Your task to perform on an android device: Open maps Image 0: 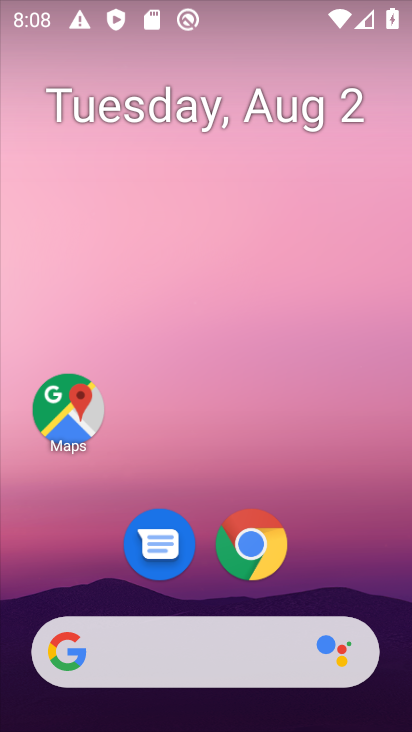
Step 0: click (60, 424)
Your task to perform on an android device: Open maps Image 1: 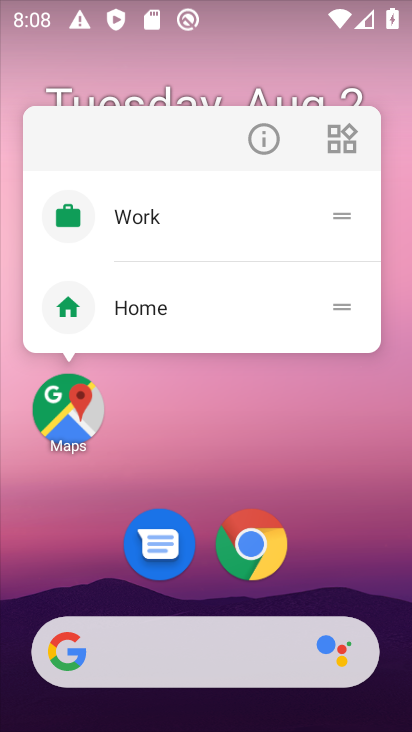
Step 1: click (60, 424)
Your task to perform on an android device: Open maps Image 2: 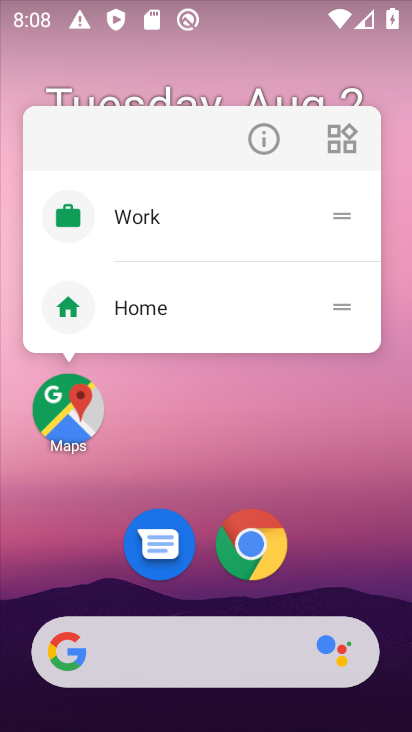
Step 2: click (69, 398)
Your task to perform on an android device: Open maps Image 3: 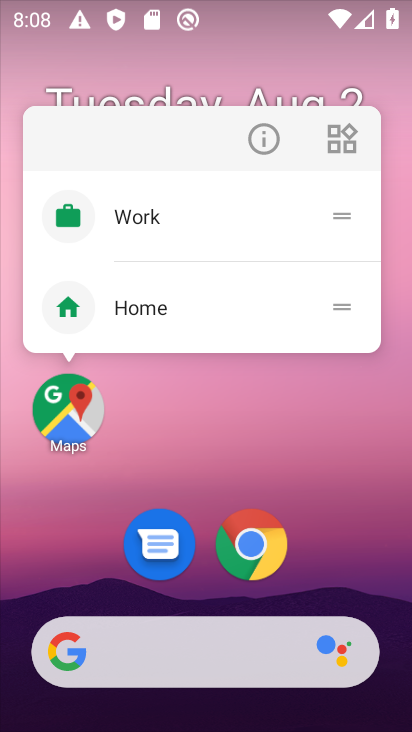
Step 3: click (69, 398)
Your task to perform on an android device: Open maps Image 4: 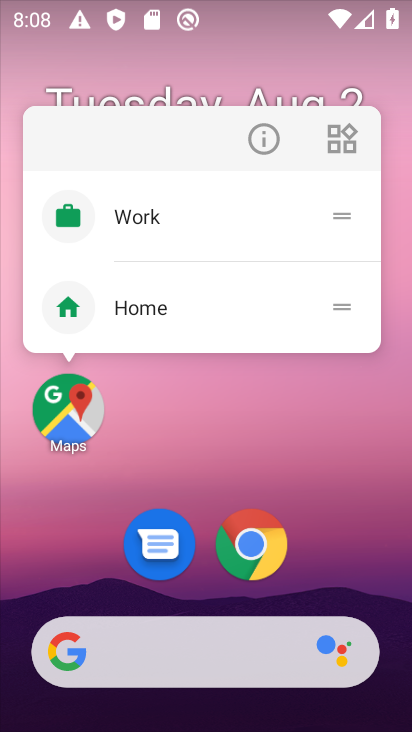
Step 4: click (38, 424)
Your task to perform on an android device: Open maps Image 5: 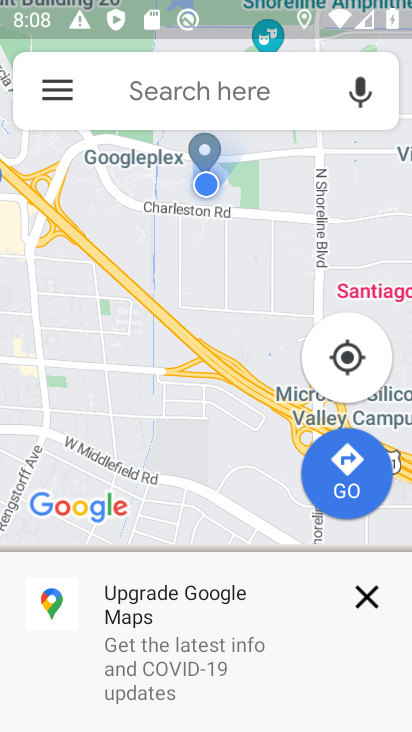
Step 5: task complete